Your task to perform on an android device: Open Yahoo.com Image 0: 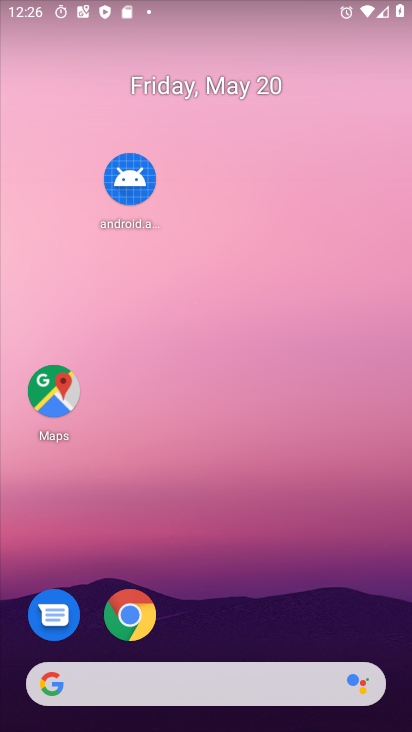
Step 0: click (141, 618)
Your task to perform on an android device: Open Yahoo.com Image 1: 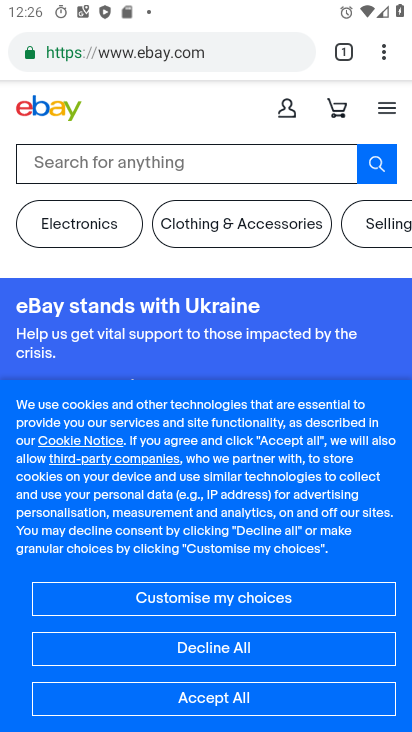
Step 1: click (343, 61)
Your task to perform on an android device: Open Yahoo.com Image 2: 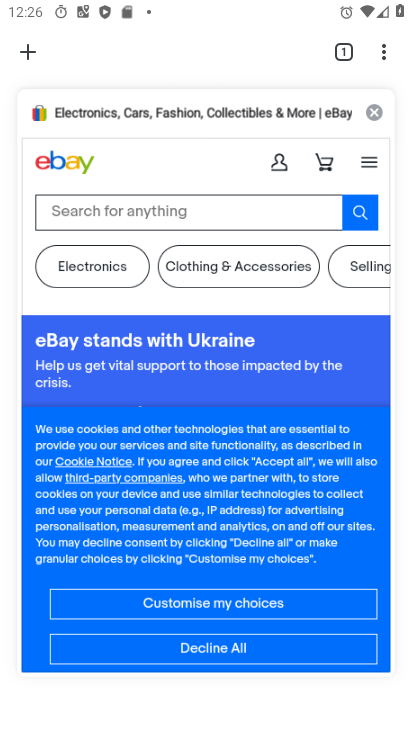
Step 2: click (380, 114)
Your task to perform on an android device: Open Yahoo.com Image 3: 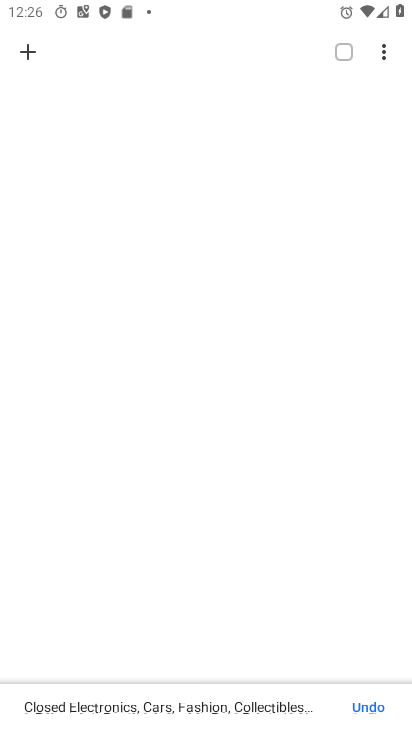
Step 3: click (25, 56)
Your task to perform on an android device: Open Yahoo.com Image 4: 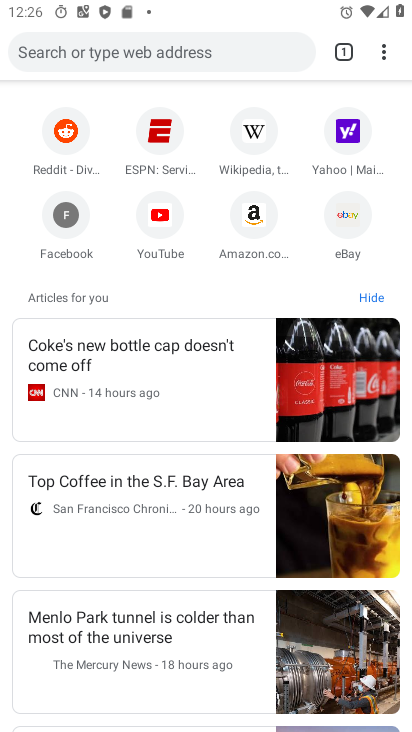
Step 4: click (364, 134)
Your task to perform on an android device: Open Yahoo.com Image 5: 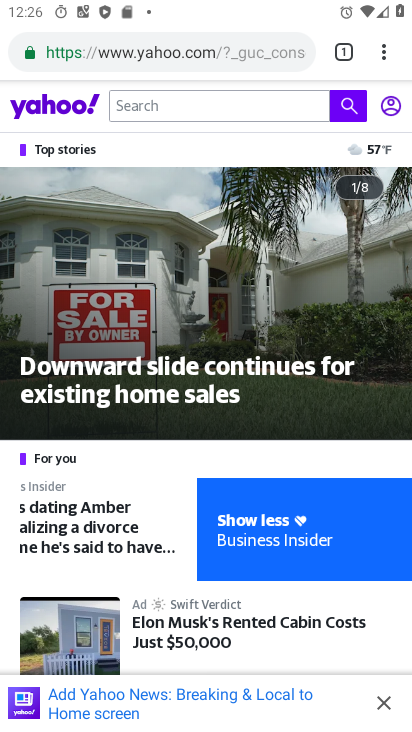
Step 5: task complete